Your task to perform on an android device: What's on my calendar today? Image 0: 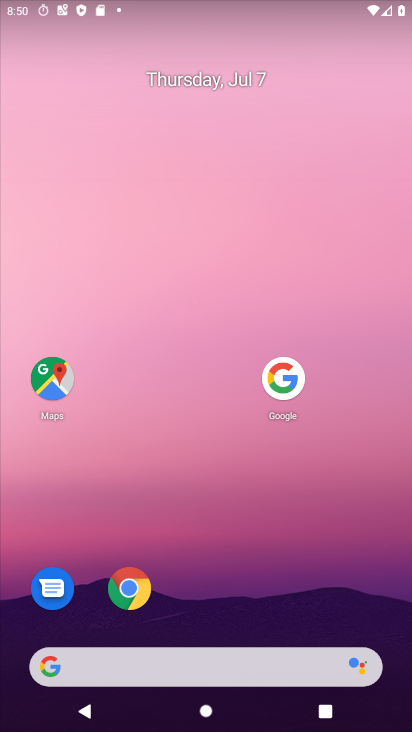
Step 0: drag from (215, 660) to (322, 76)
Your task to perform on an android device: What's on my calendar today? Image 1: 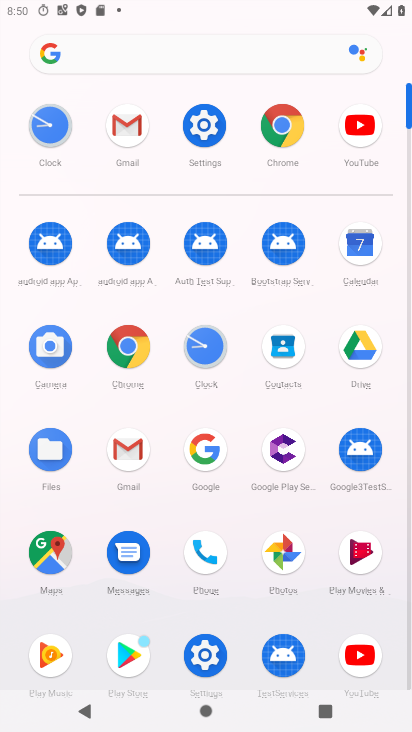
Step 1: click (362, 245)
Your task to perform on an android device: What's on my calendar today? Image 2: 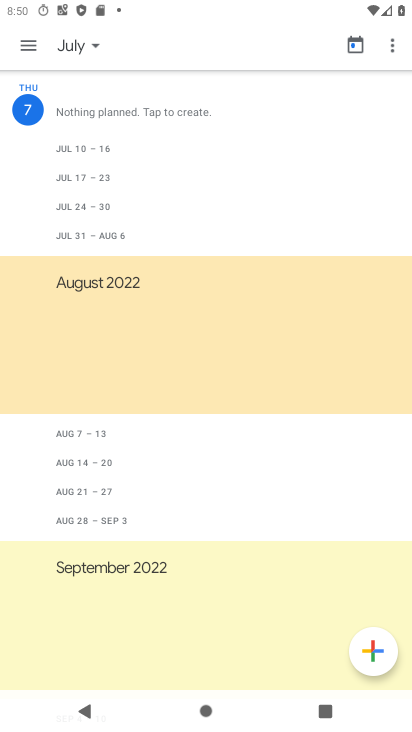
Step 2: task complete